Your task to perform on an android device: Open Yahoo.com Image 0: 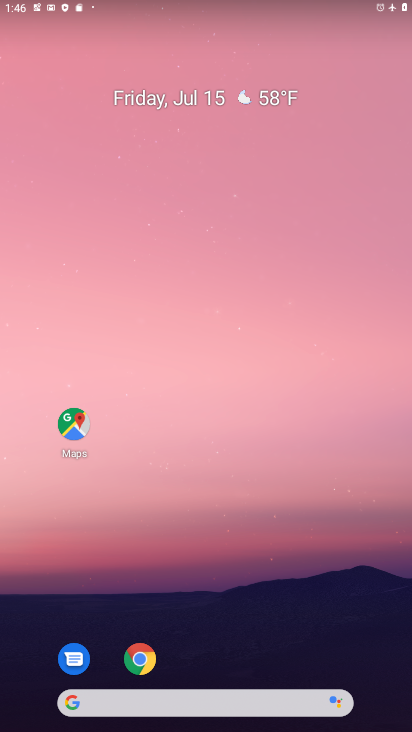
Step 0: drag from (233, 730) to (238, 166)
Your task to perform on an android device: Open Yahoo.com Image 1: 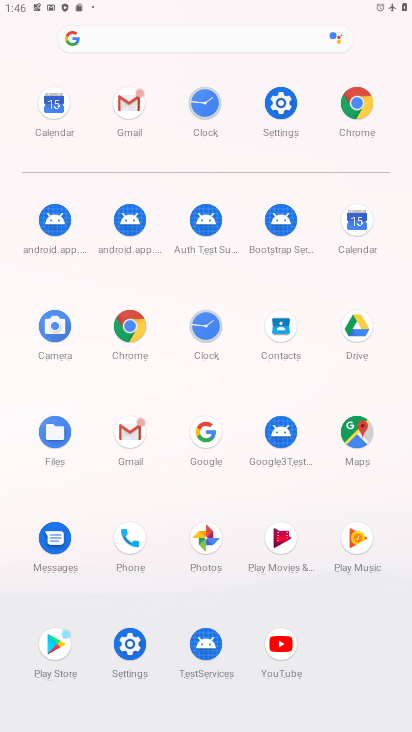
Step 1: click (136, 329)
Your task to perform on an android device: Open Yahoo.com Image 2: 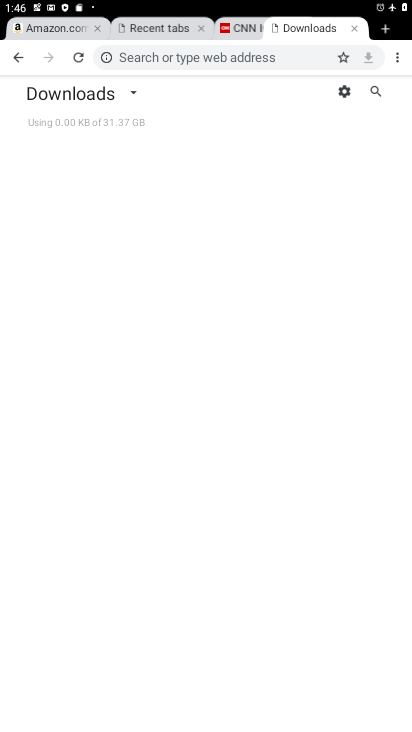
Step 2: click (398, 66)
Your task to perform on an android device: Open Yahoo.com Image 3: 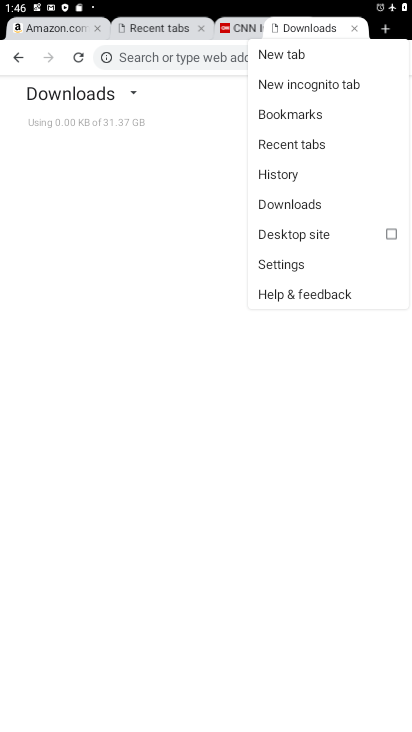
Step 3: click (288, 50)
Your task to perform on an android device: Open Yahoo.com Image 4: 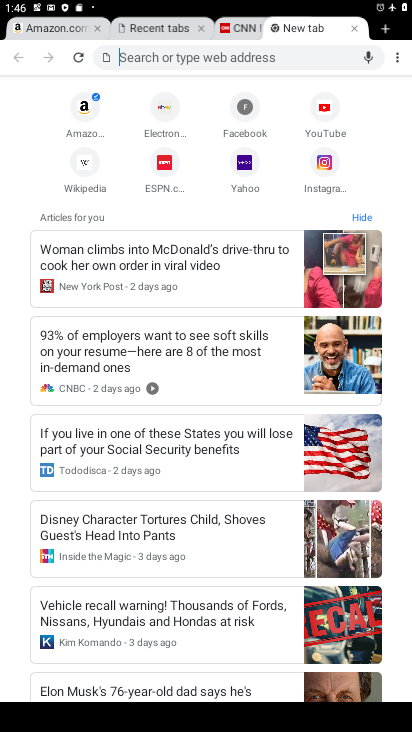
Step 4: click (239, 159)
Your task to perform on an android device: Open Yahoo.com Image 5: 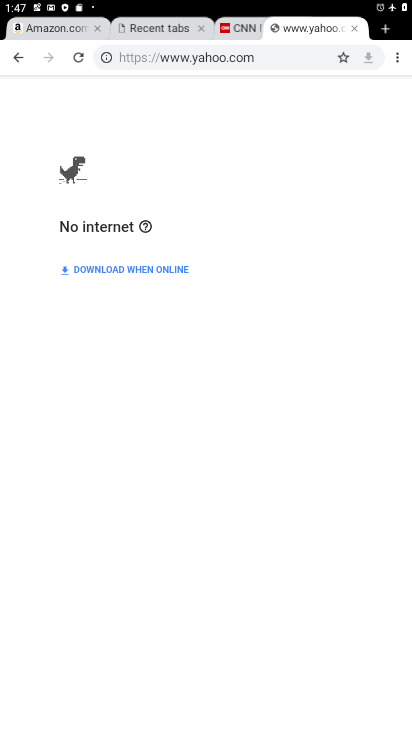
Step 5: task complete